Your task to perform on an android device: toggle notification dots Image 0: 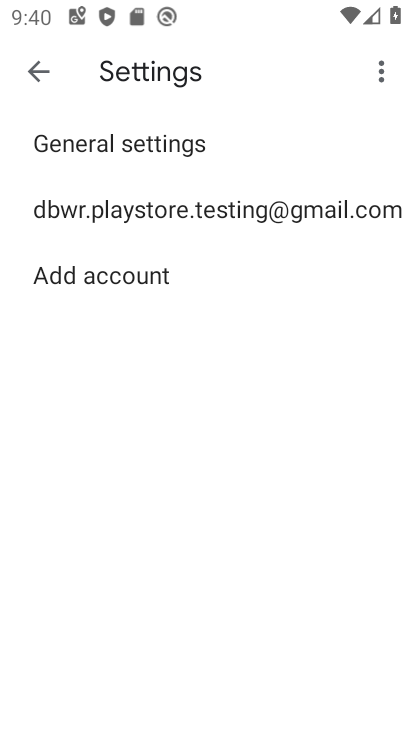
Step 0: click (300, 210)
Your task to perform on an android device: toggle notification dots Image 1: 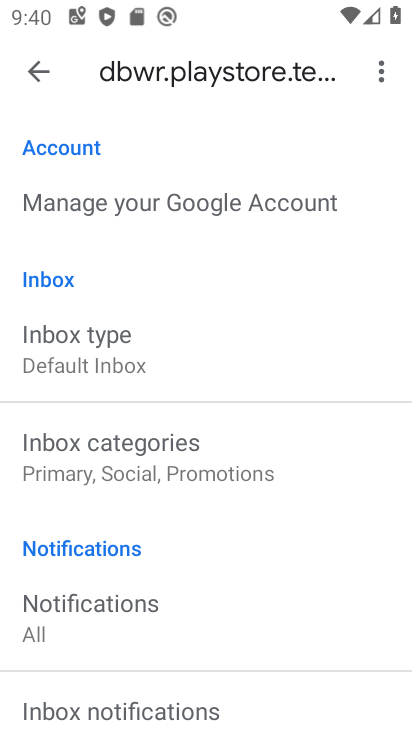
Step 1: drag from (199, 625) to (211, 354)
Your task to perform on an android device: toggle notification dots Image 2: 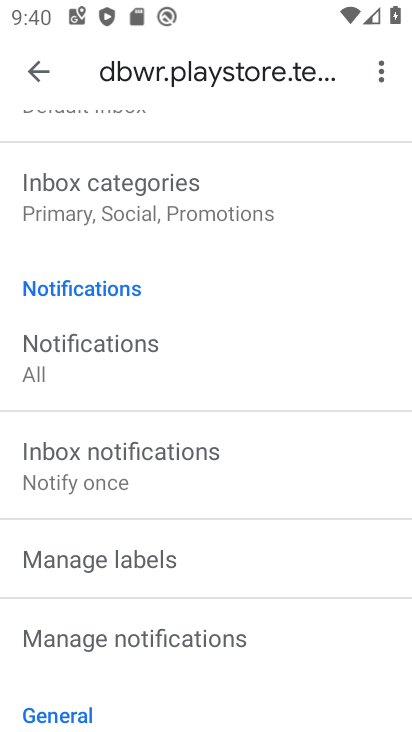
Step 2: press home button
Your task to perform on an android device: toggle notification dots Image 3: 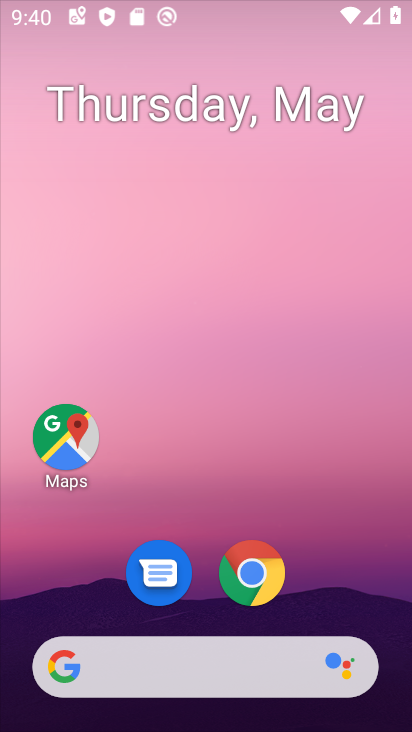
Step 3: drag from (199, 605) to (184, 216)
Your task to perform on an android device: toggle notification dots Image 4: 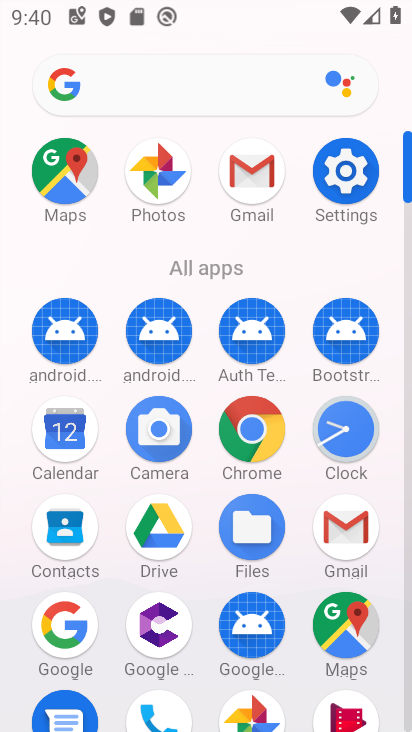
Step 4: click (367, 164)
Your task to perform on an android device: toggle notification dots Image 5: 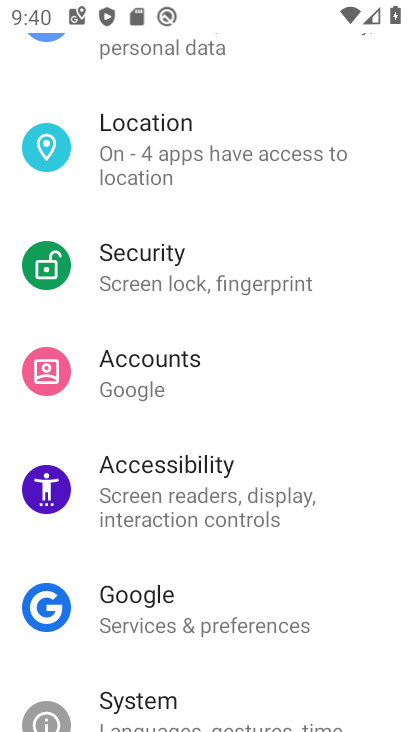
Step 5: drag from (181, 172) to (230, 518)
Your task to perform on an android device: toggle notification dots Image 6: 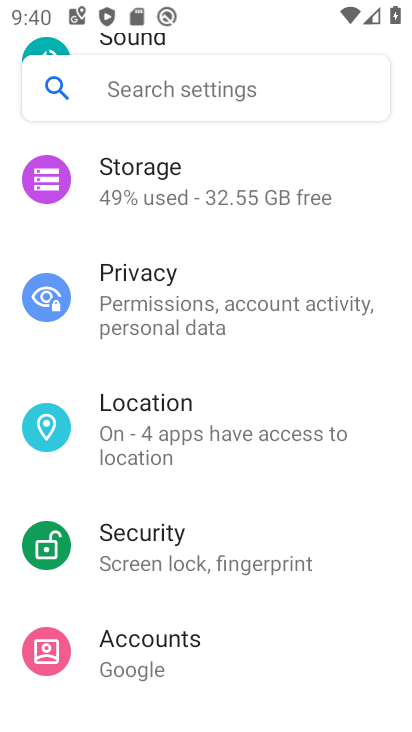
Step 6: drag from (226, 177) to (229, 447)
Your task to perform on an android device: toggle notification dots Image 7: 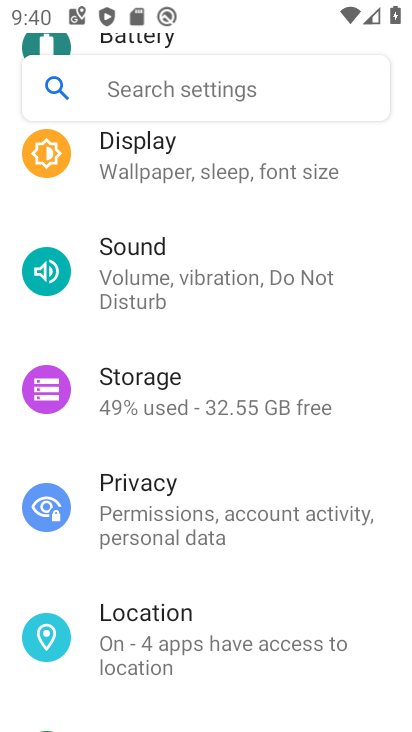
Step 7: drag from (188, 227) to (236, 610)
Your task to perform on an android device: toggle notification dots Image 8: 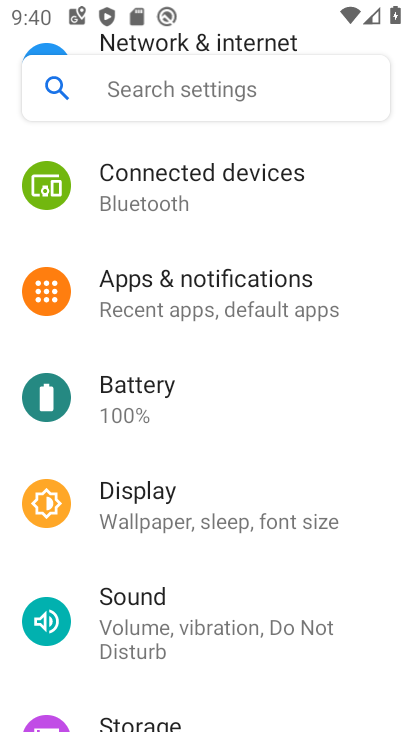
Step 8: click (169, 307)
Your task to perform on an android device: toggle notification dots Image 9: 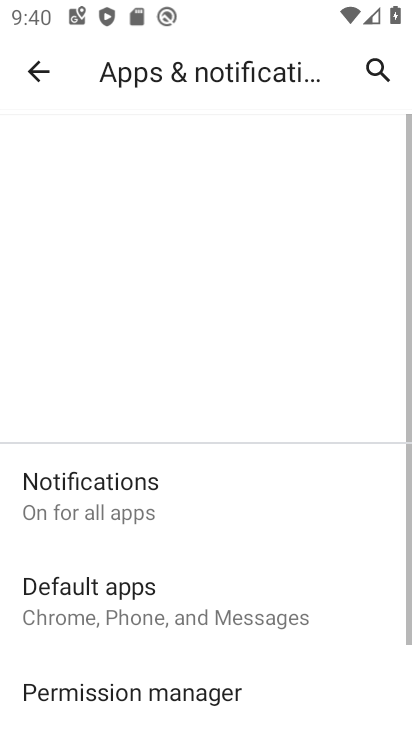
Step 9: drag from (187, 605) to (224, 416)
Your task to perform on an android device: toggle notification dots Image 10: 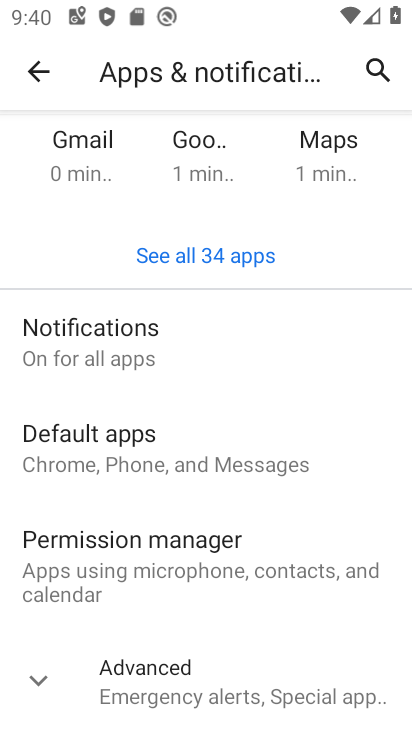
Step 10: click (140, 346)
Your task to perform on an android device: toggle notification dots Image 11: 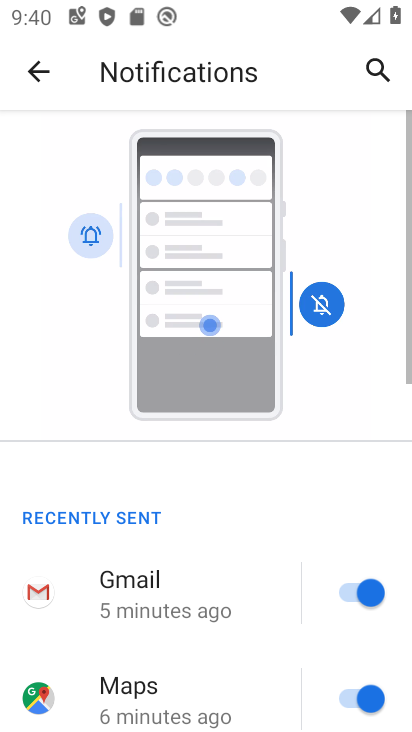
Step 11: drag from (227, 606) to (241, 203)
Your task to perform on an android device: toggle notification dots Image 12: 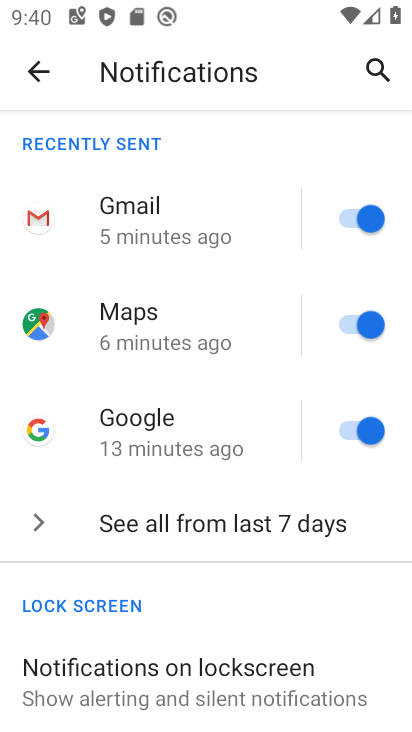
Step 12: drag from (200, 560) to (224, 205)
Your task to perform on an android device: toggle notification dots Image 13: 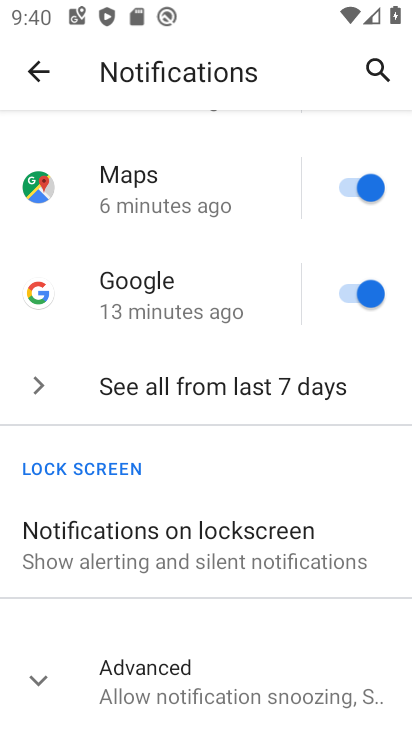
Step 13: click (220, 639)
Your task to perform on an android device: toggle notification dots Image 14: 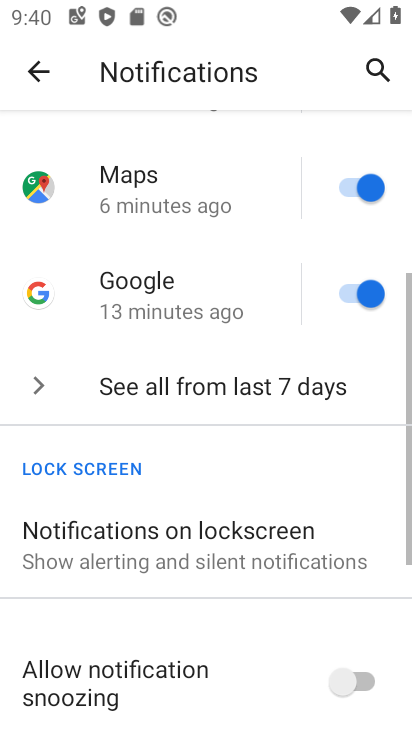
Step 14: drag from (225, 639) to (267, 269)
Your task to perform on an android device: toggle notification dots Image 15: 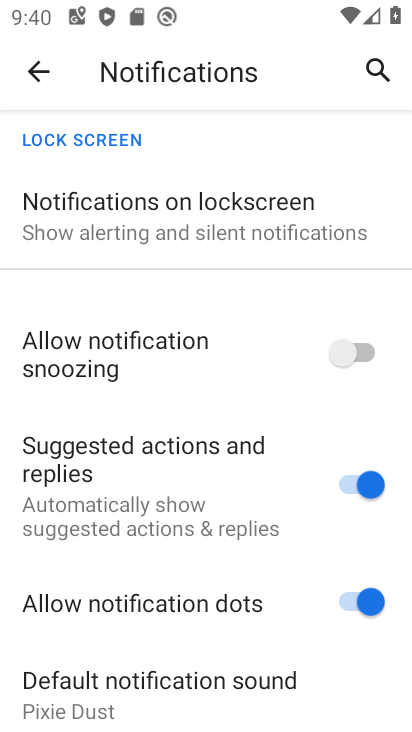
Step 15: click (350, 599)
Your task to perform on an android device: toggle notification dots Image 16: 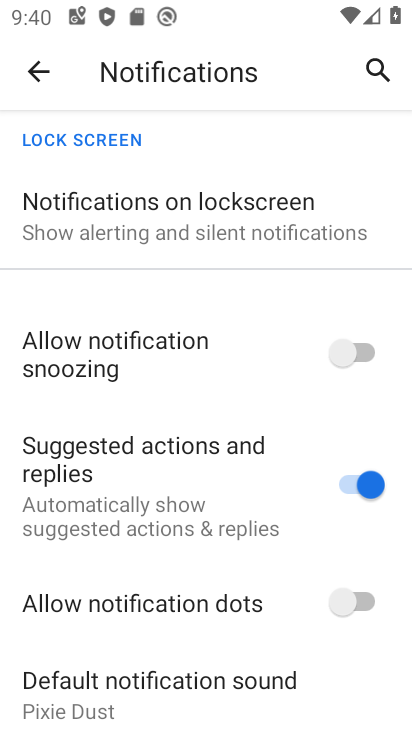
Step 16: task complete